Your task to perform on an android device: turn on translation in the chrome app Image 0: 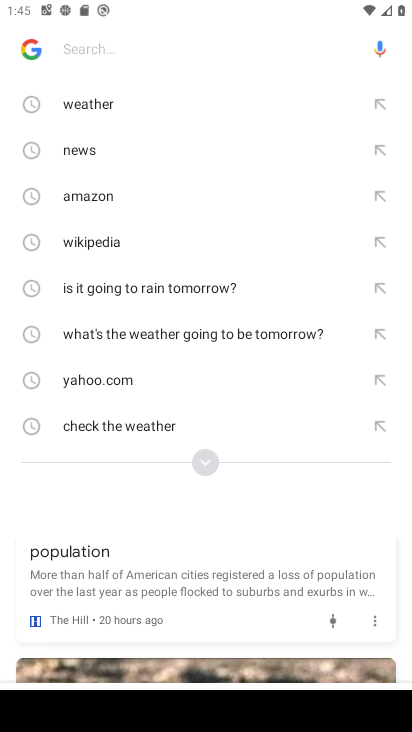
Step 0: press home button
Your task to perform on an android device: turn on translation in the chrome app Image 1: 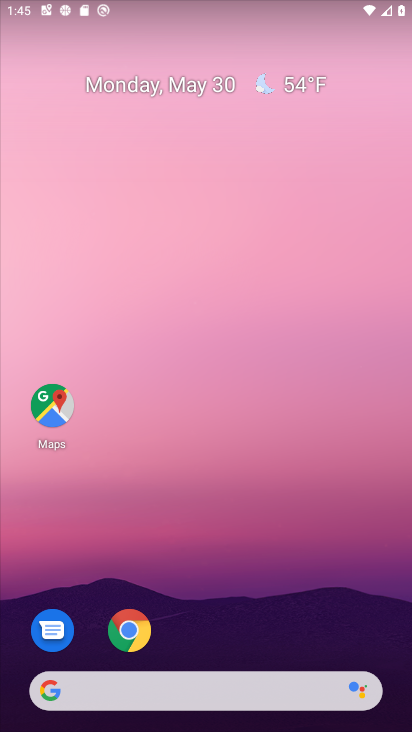
Step 1: click (132, 633)
Your task to perform on an android device: turn on translation in the chrome app Image 2: 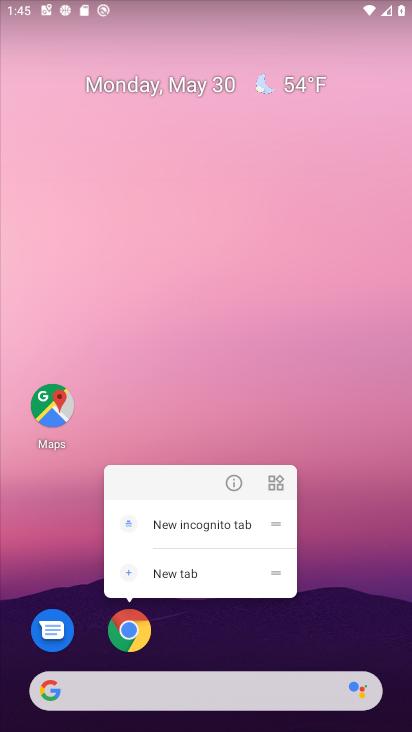
Step 2: click (127, 638)
Your task to perform on an android device: turn on translation in the chrome app Image 3: 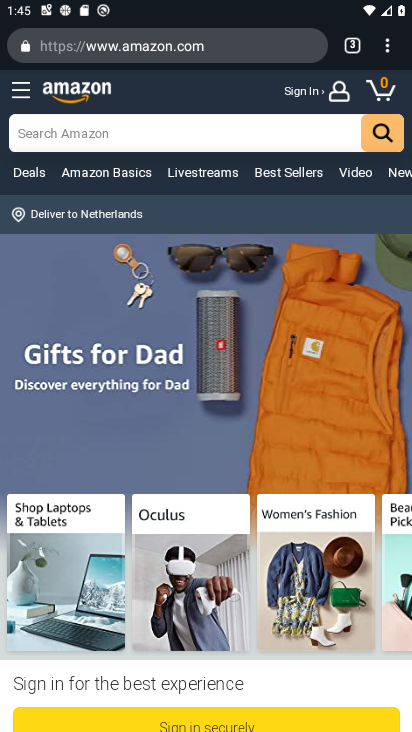
Step 3: click (385, 47)
Your task to perform on an android device: turn on translation in the chrome app Image 4: 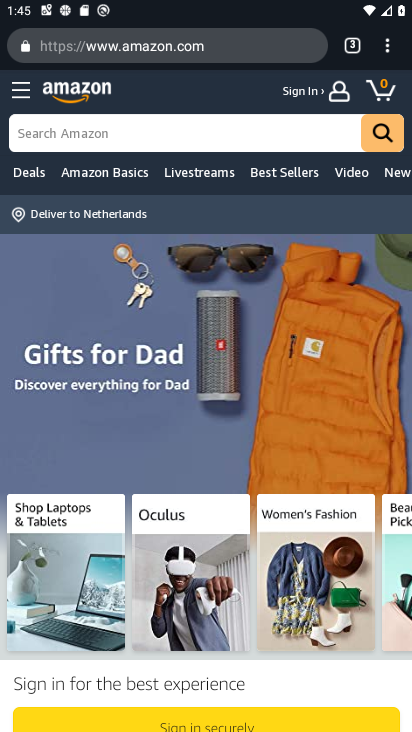
Step 4: drag from (382, 48) to (277, 553)
Your task to perform on an android device: turn on translation in the chrome app Image 5: 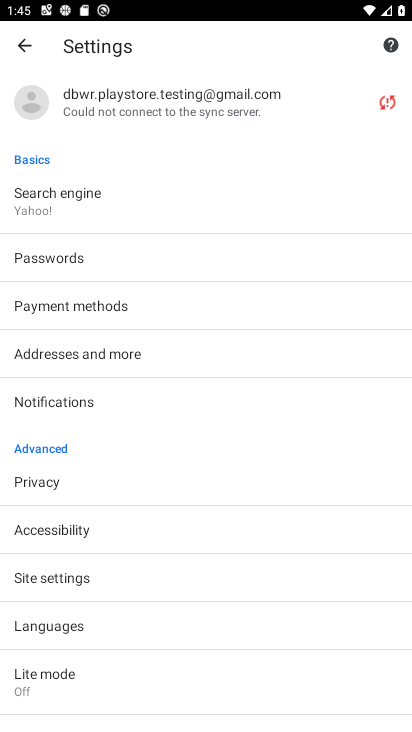
Step 5: click (60, 628)
Your task to perform on an android device: turn on translation in the chrome app Image 6: 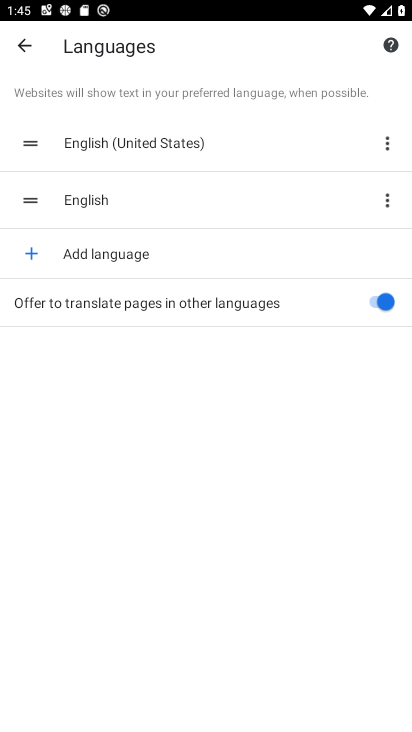
Step 6: task complete